Your task to perform on an android device: turn on javascript in the chrome app Image 0: 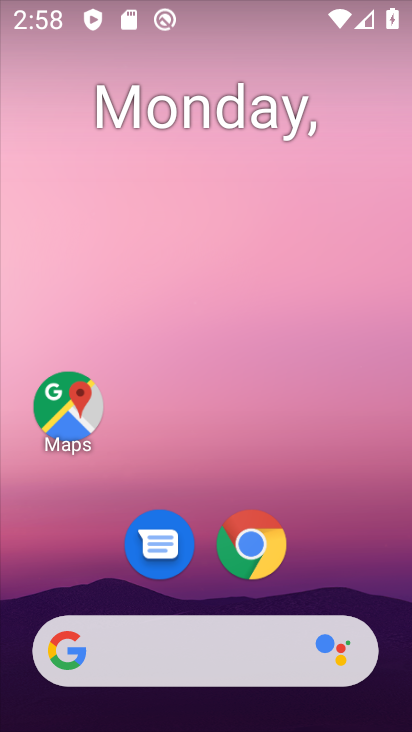
Step 0: click (249, 532)
Your task to perform on an android device: turn on javascript in the chrome app Image 1: 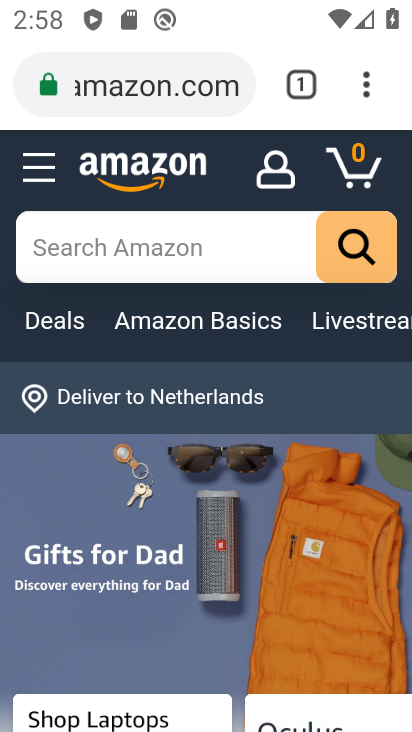
Step 1: click (368, 78)
Your task to perform on an android device: turn on javascript in the chrome app Image 2: 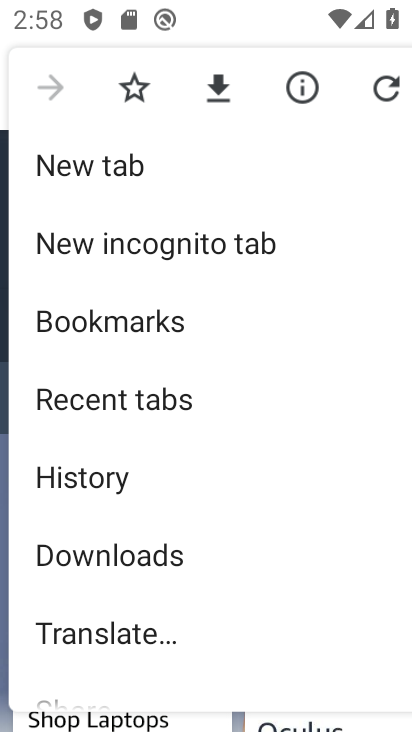
Step 2: drag from (104, 597) to (67, 258)
Your task to perform on an android device: turn on javascript in the chrome app Image 3: 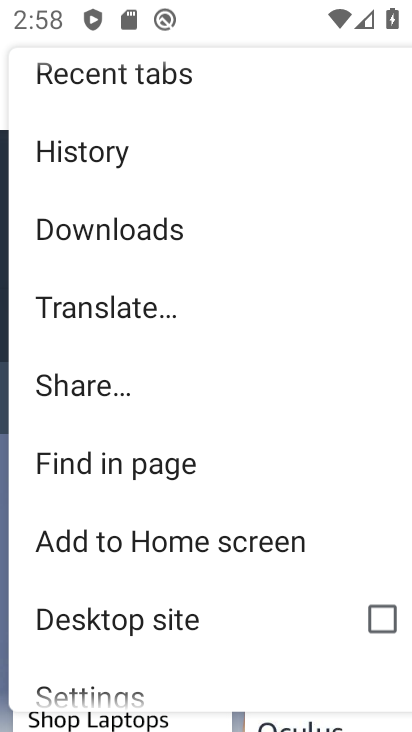
Step 3: click (88, 684)
Your task to perform on an android device: turn on javascript in the chrome app Image 4: 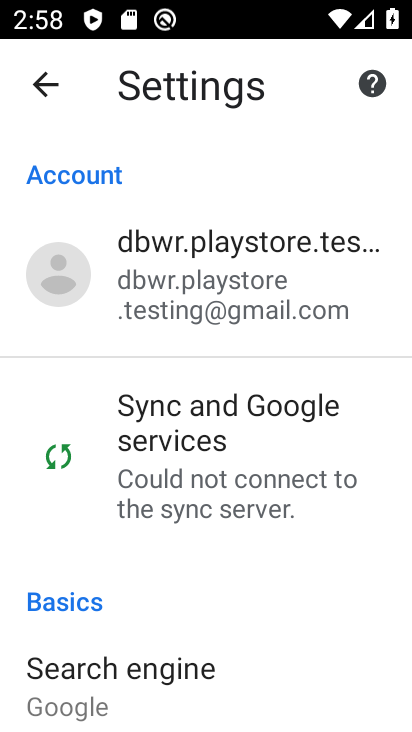
Step 4: drag from (239, 670) to (226, 313)
Your task to perform on an android device: turn on javascript in the chrome app Image 5: 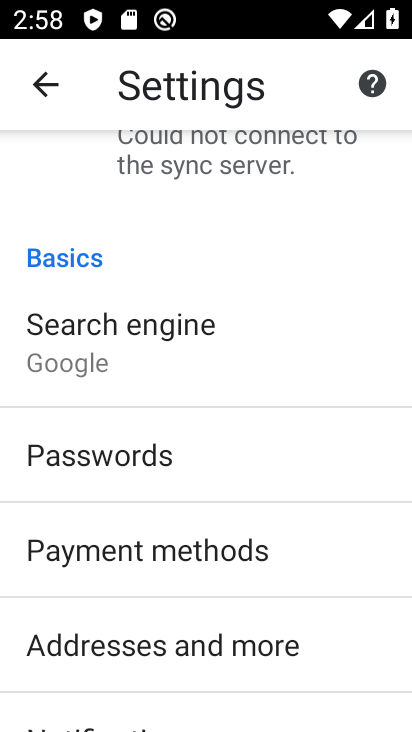
Step 5: drag from (231, 696) to (218, 280)
Your task to perform on an android device: turn on javascript in the chrome app Image 6: 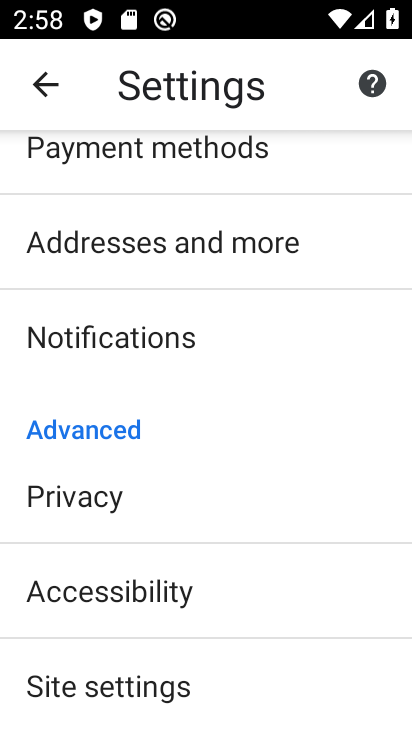
Step 6: drag from (201, 638) to (225, 437)
Your task to perform on an android device: turn on javascript in the chrome app Image 7: 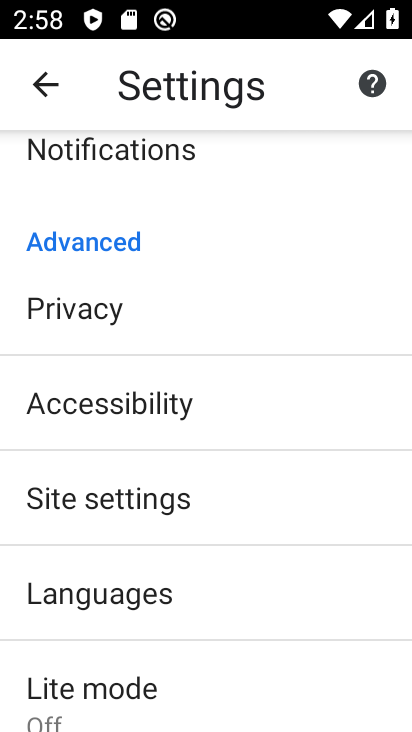
Step 7: click (122, 508)
Your task to perform on an android device: turn on javascript in the chrome app Image 8: 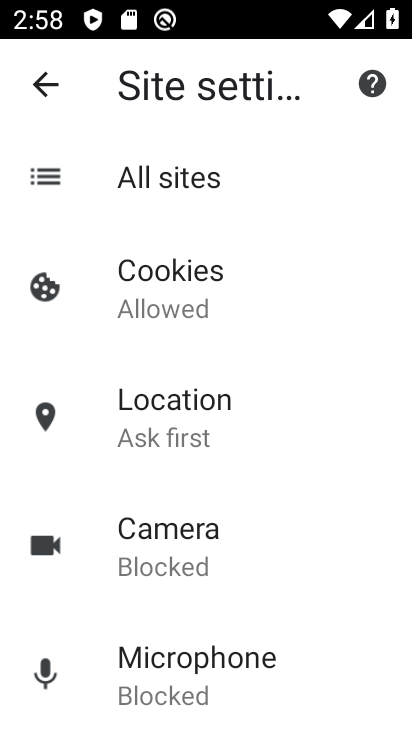
Step 8: drag from (287, 680) to (229, 307)
Your task to perform on an android device: turn on javascript in the chrome app Image 9: 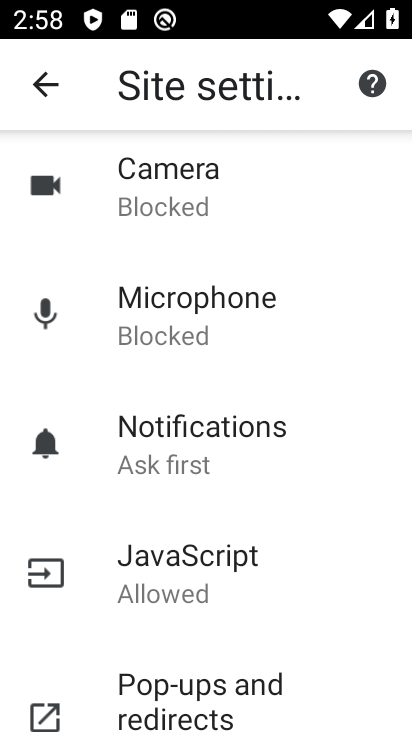
Step 9: drag from (234, 604) to (258, 247)
Your task to perform on an android device: turn on javascript in the chrome app Image 10: 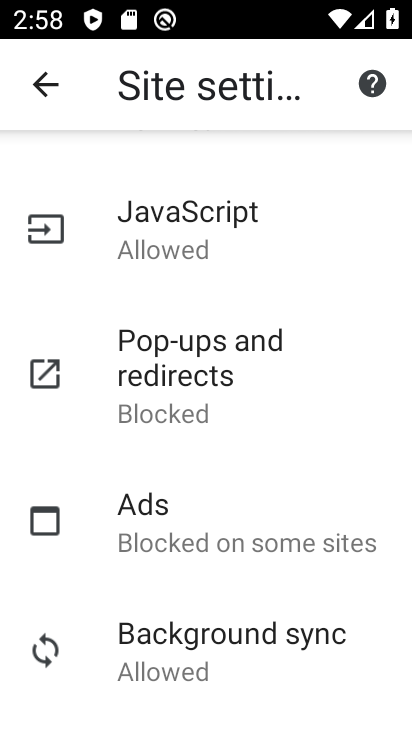
Step 10: click (195, 241)
Your task to perform on an android device: turn on javascript in the chrome app Image 11: 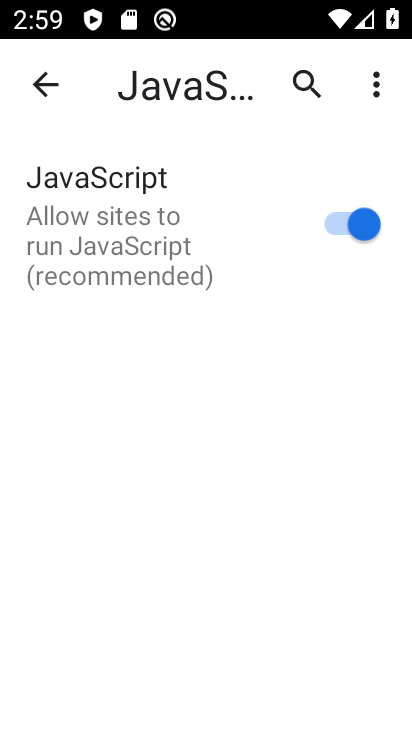
Step 11: task complete